Your task to perform on an android device: Open wifi settings Image 0: 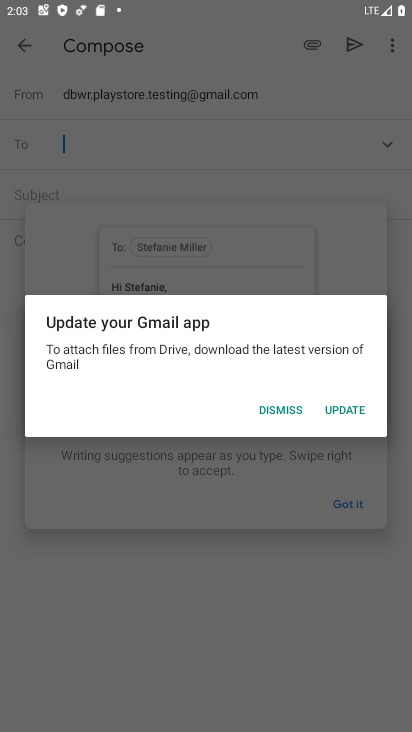
Step 0: press home button
Your task to perform on an android device: Open wifi settings Image 1: 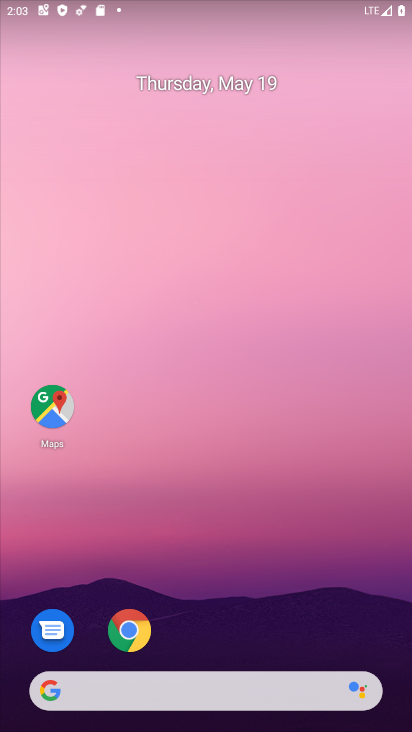
Step 1: drag from (331, 356) to (291, 159)
Your task to perform on an android device: Open wifi settings Image 2: 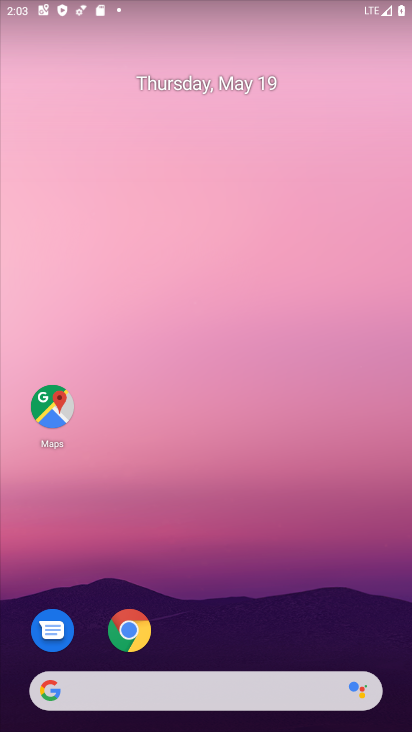
Step 2: drag from (382, 672) to (299, 32)
Your task to perform on an android device: Open wifi settings Image 3: 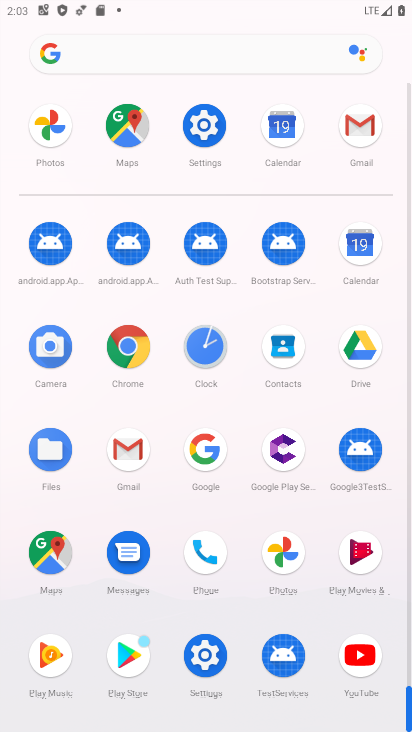
Step 3: click (204, 655)
Your task to perform on an android device: Open wifi settings Image 4: 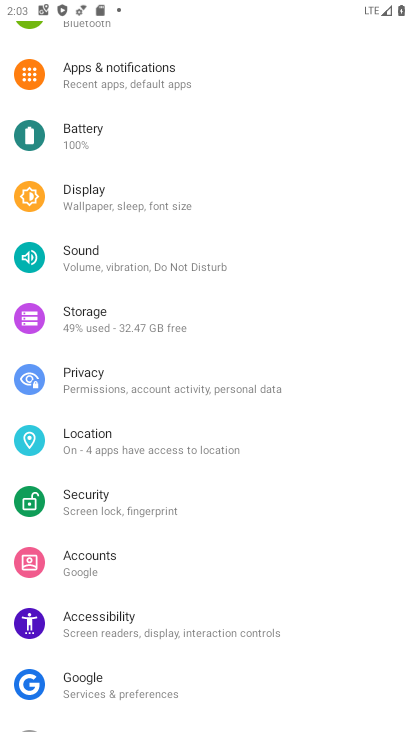
Step 4: drag from (330, 120) to (340, 354)
Your task to perform on an android device: Open wifi settings Image 5: 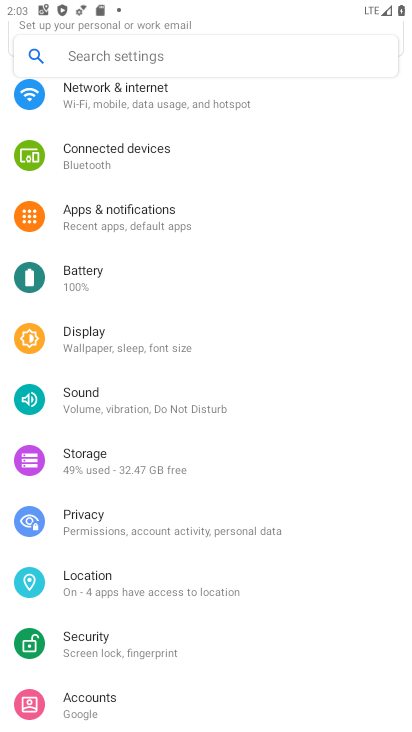
Step 5: click (99, 88)
Your task to perform on an android device: Open wifi settings Image 6: 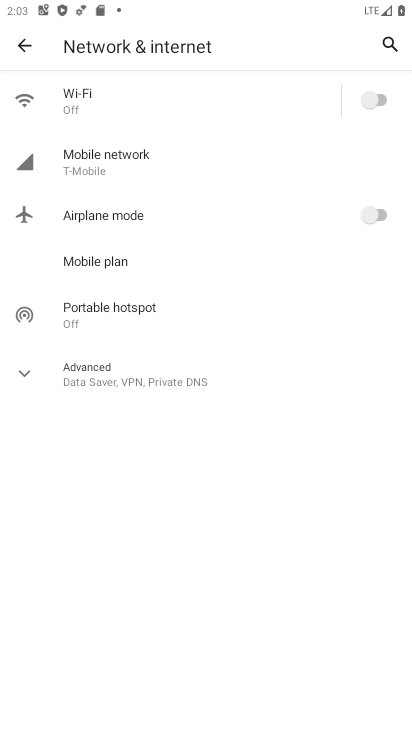
Step 6: click (65, 91)
Your task to perform on an android device: Open wifi settings Image 7: 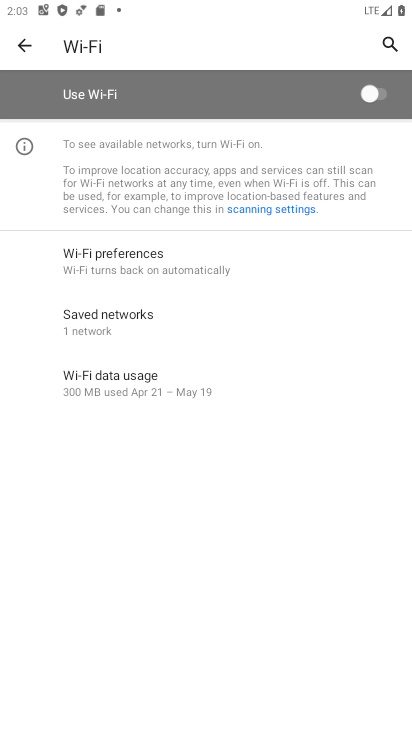
Step 7: task complete